Your task to perform on an android device: turn on translation in the chrome app Image 0: 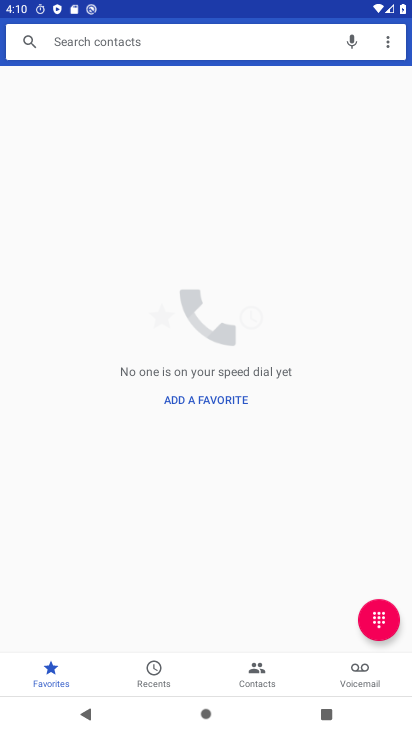
Step 0: press home button
Your task to perform on an android device: turn on translation in the chrome app Image 1: 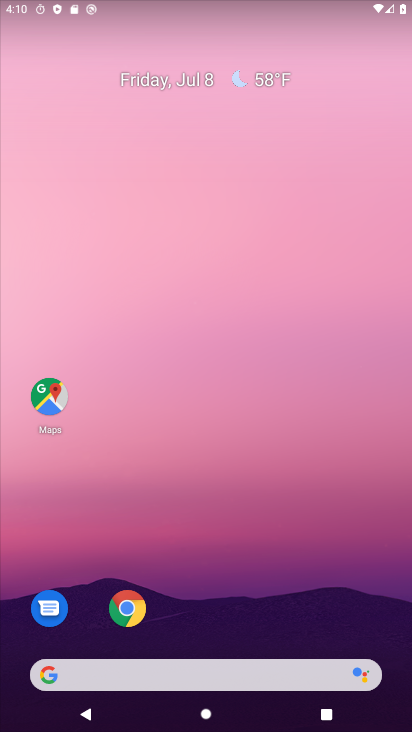
Step 1: click (129, 607)
Your task to perform on an android device: turn on translation in the chrome app Image 2: 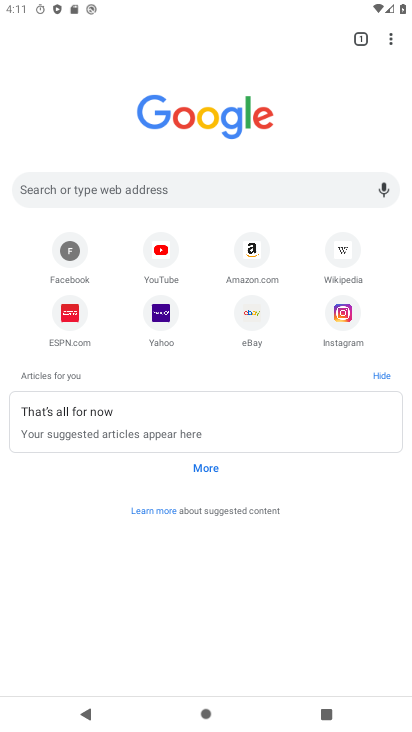
Step 2: click (129, 607)
Your task to perform on an android device: turn on translation in the chrome app Image 3: 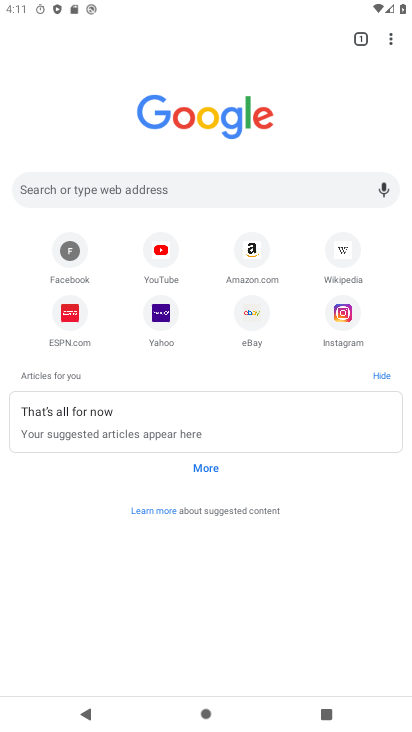
Step 3: click (397, 42)
Your task to perform on an android device: turn on translation in the chrome app Image 4: 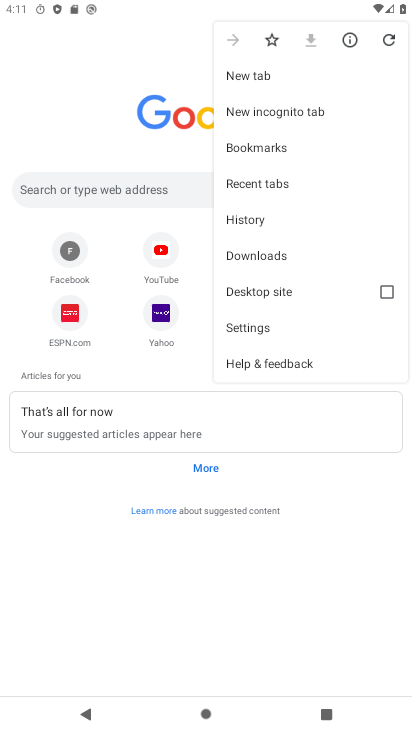
Step 4: click (238, 333)
Your task to perform on an android device: turn on translation in the chrome app Image 5: 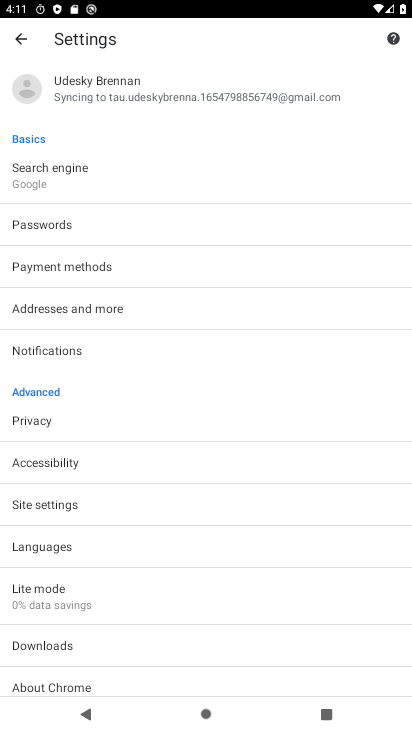
Step 5: click (41, 542)
Your task to perform on an android device: turn on translation in the chrome app Image 6: 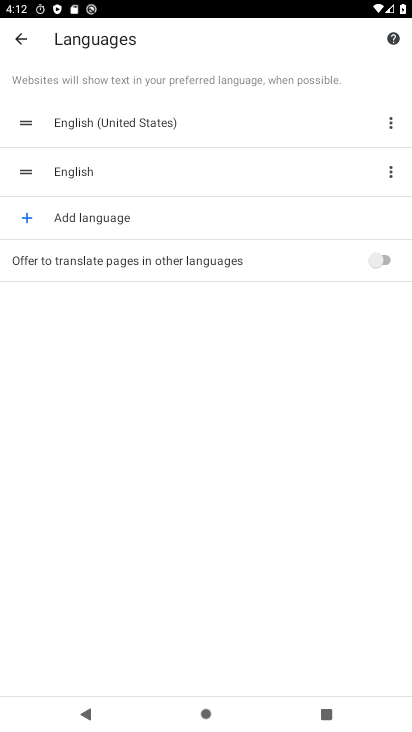
Step 6: click (379, 267)
Your task to perform on an android device: turn on translation in the chrome app Image 7: 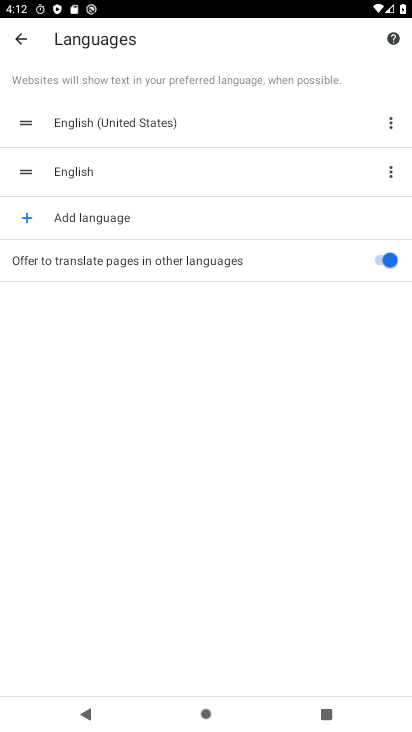
Step 7: task complete